Your task to perform on an android device: Do I have any events this weekend? Image 0: 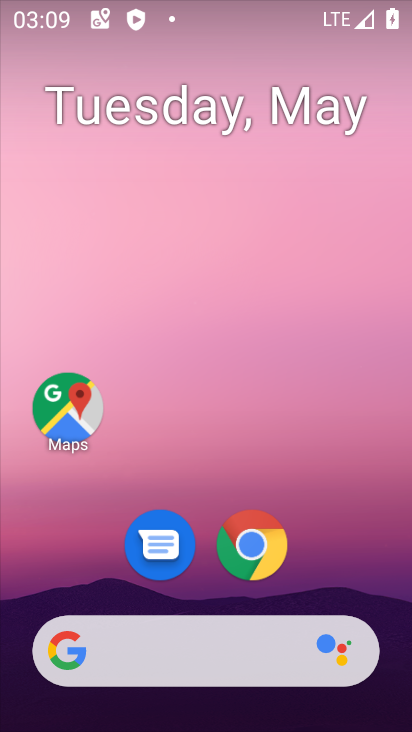
Step 0: drag from (386, 588) to (325, 196)
Your task to perform on an android device: Do I have any events this weekend? Image 1: 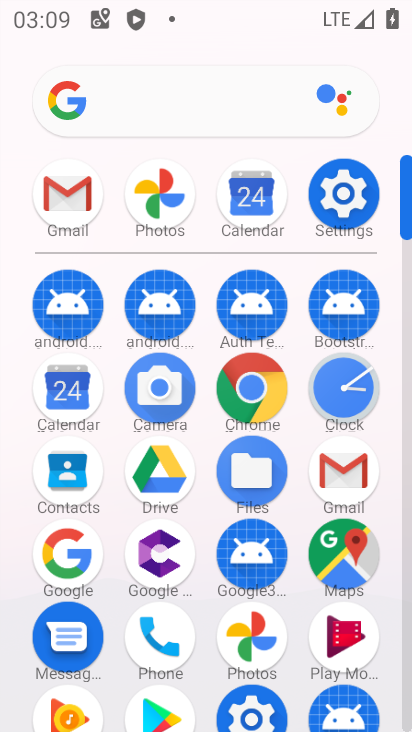
Step 1: click (409, 700)
Your task to perform on an android device: Do I have any events this weekend? Image 2: 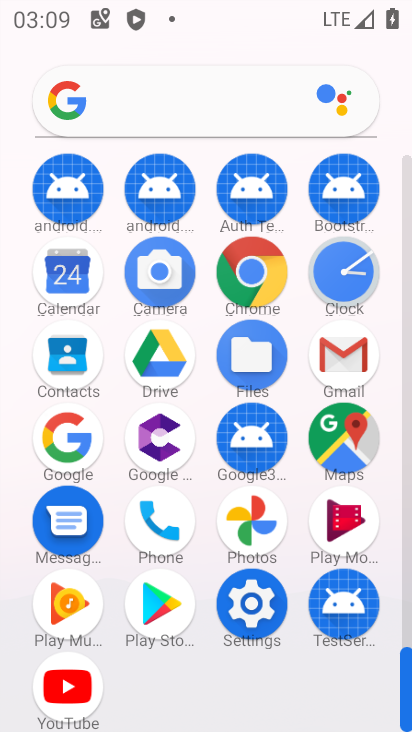
Step 2: click (65, 266)
Your task to perform on an android device: Do I have any events this weekend? Image 3: 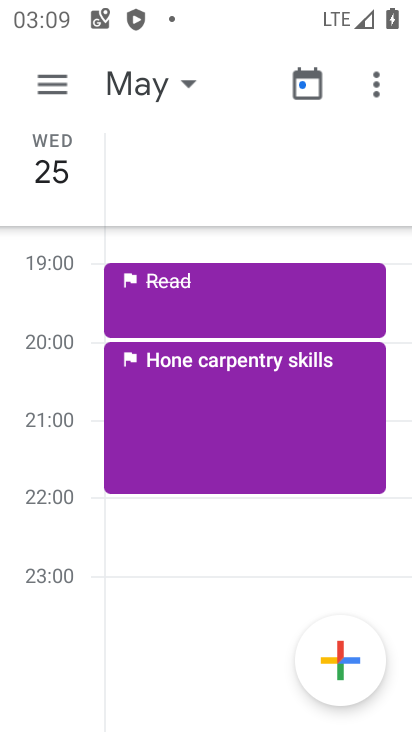
Step 3: click (52, 68)
Your task to perform on an android device: Do I have any events this weekend? Image 4: 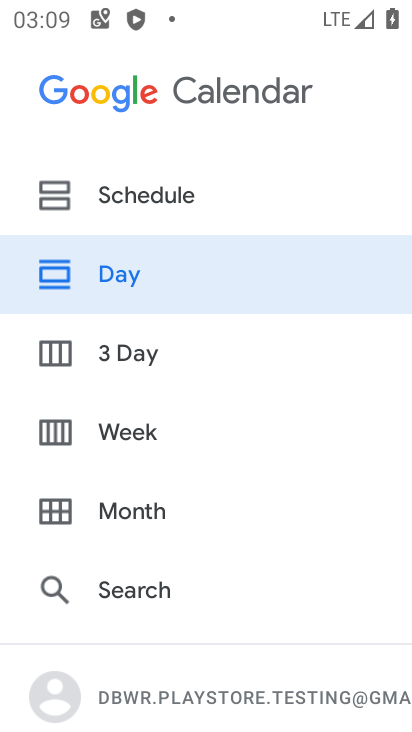
Step 4: click (117, 430)
Your task to perform on an android device: Do I have any events this weekend? Image 5: 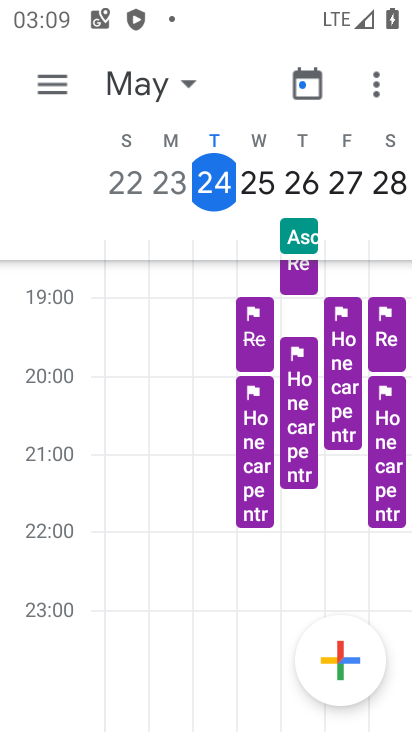
Step 5: task complete